Your task to perform on an android device: turn on translation in the chrome app Image 0: 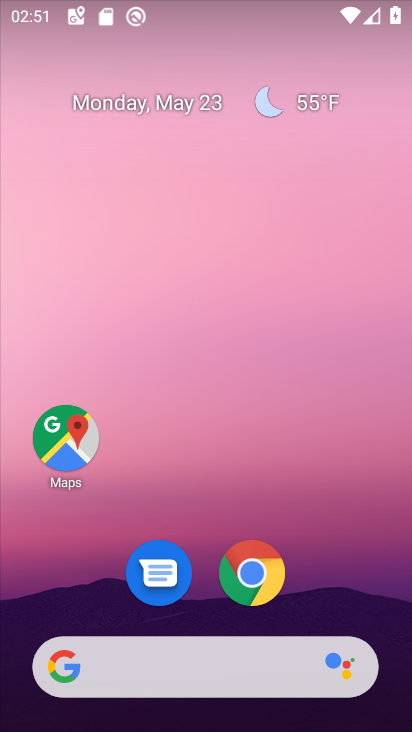
Step 0: click (247, 570)
Your task to perform on an android device: turn on translation in the chrome app Image 1: 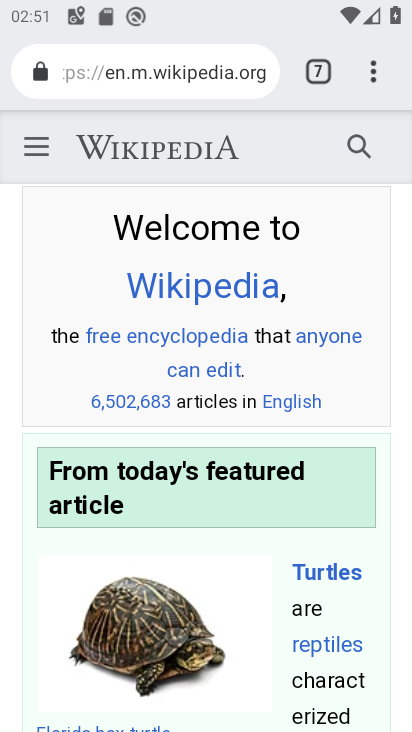
Step 1: click (366, 64)
Your task to perform on an android device: turn on translation in the chrome app Image 2: 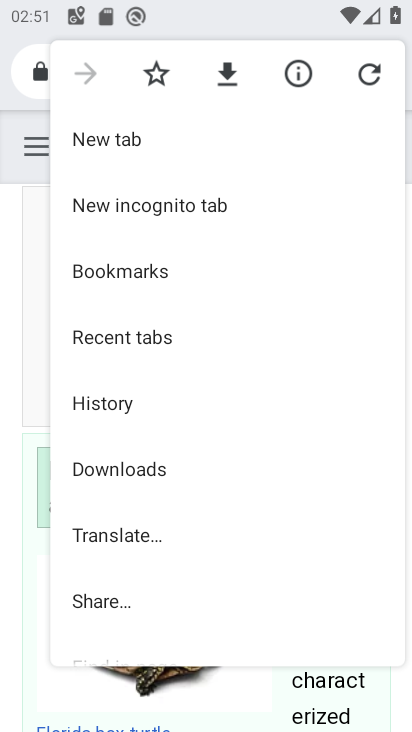
Step 2: drag from (200, 546) to (170, 338)
Your task to perform on an android device: turn on translation in the chrome app Image 3: 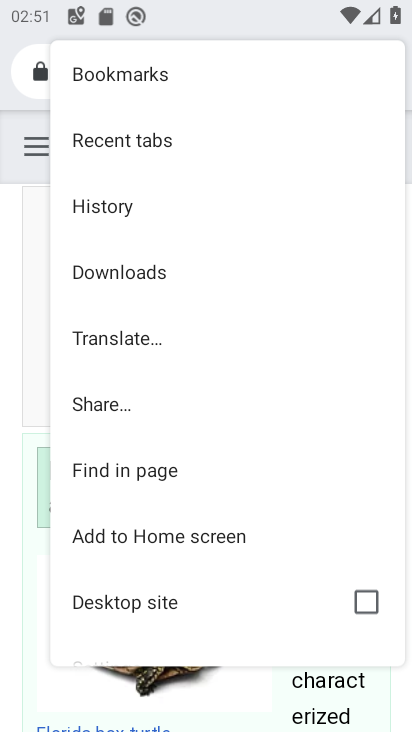
Step 3: click (123, 341)
Your task to perform on an android device: turn on translation in the chrome app Image 4: 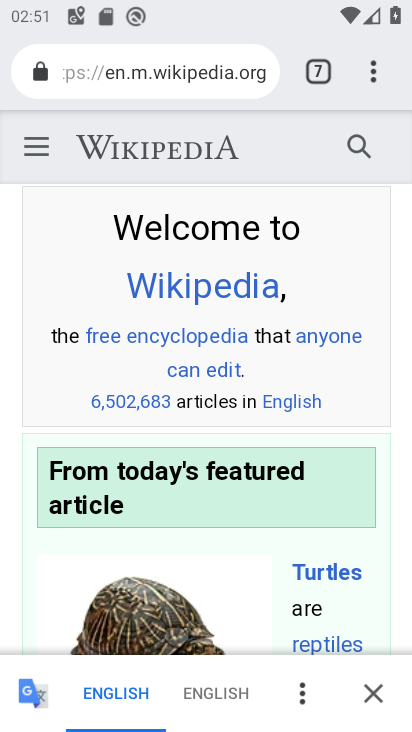
Step 4: click (299, 675)
Your task to perform on an android device: turn on translation in the chrome app Image 5: 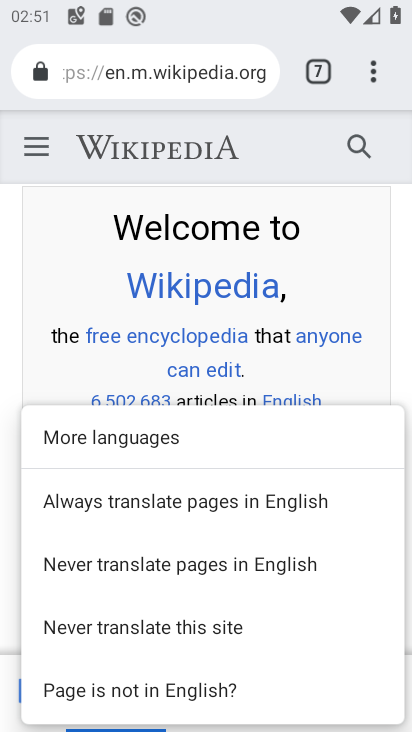
Step 5: click (252, 496)
Your task to perform on an android device: turn on translation in the chrome app Image 6: 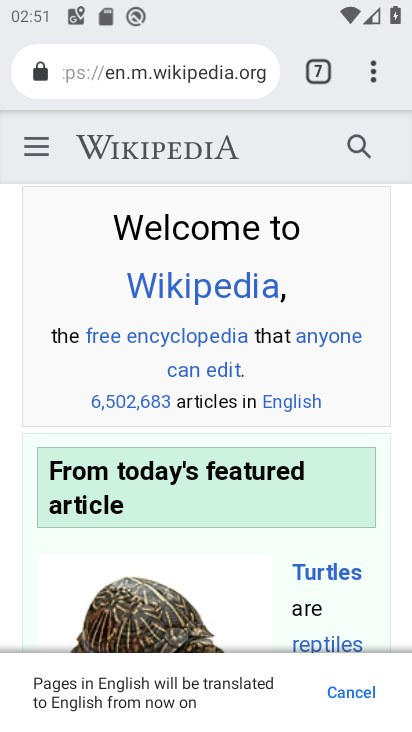
Step 6: task complete